Your task to perform on an android device: Add razer nari to the cart on costco, then select checkout. Image 0: 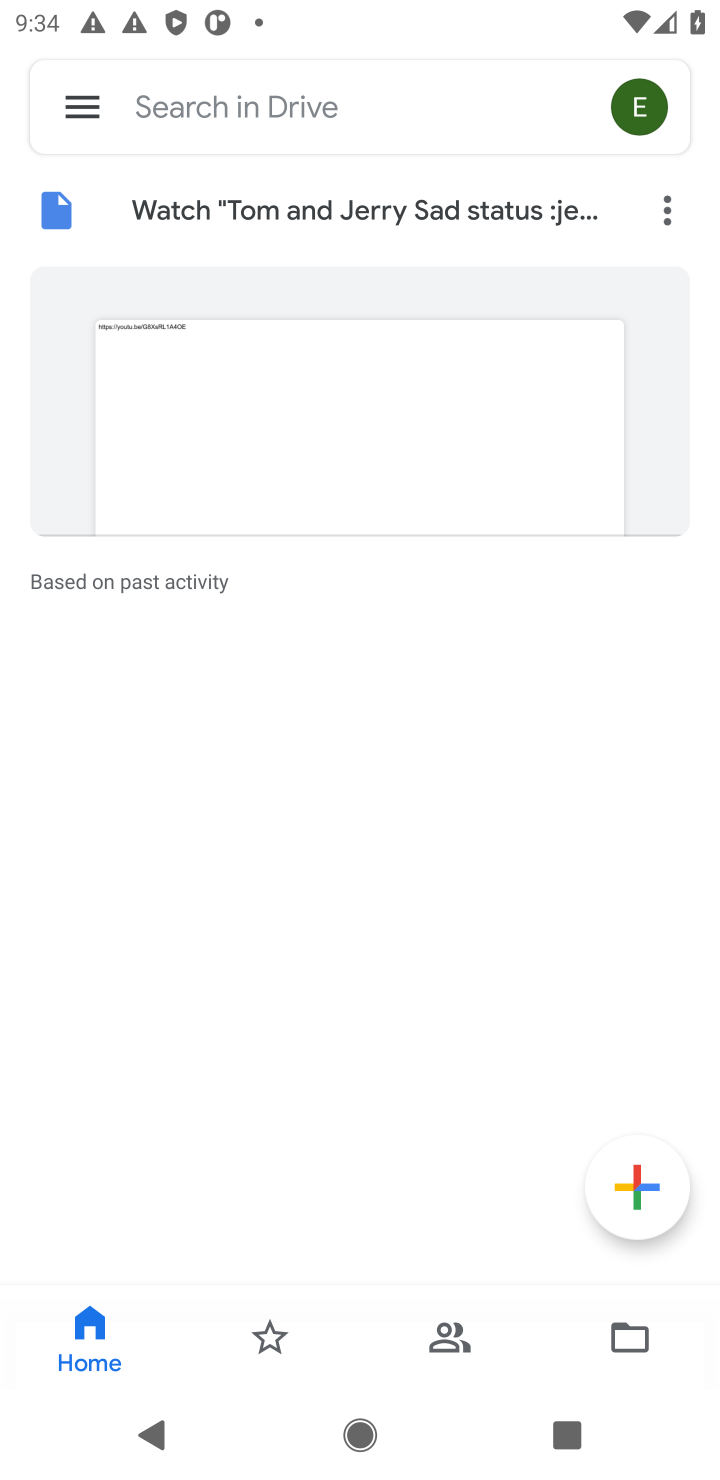
Step 0: press home button
Your task to perform on an android device: Add razer nari to the cart on costco, then select checkout. Image 1: 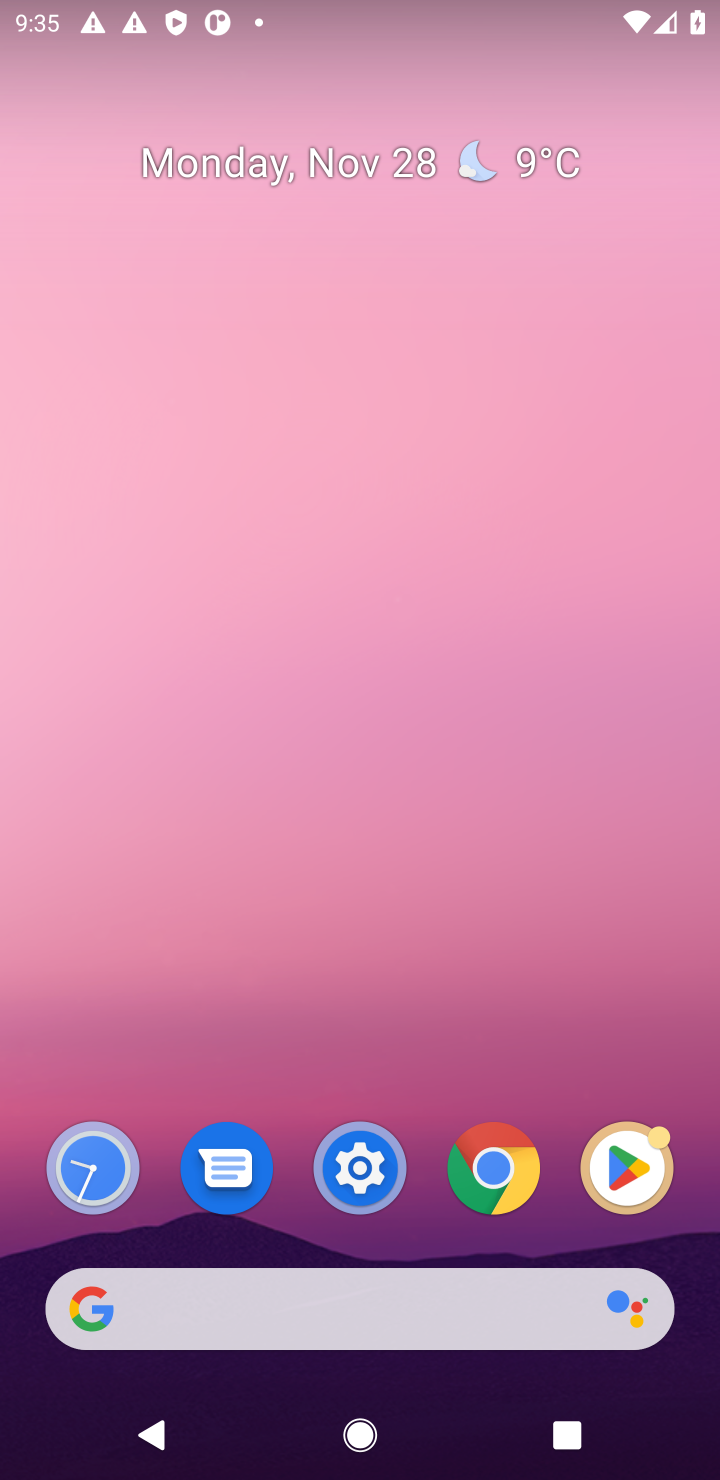
Step 1: click (276, 1311)
Your task to perform on an android device: Add razer nari to the cart on costco, then select checkout. Image 2: 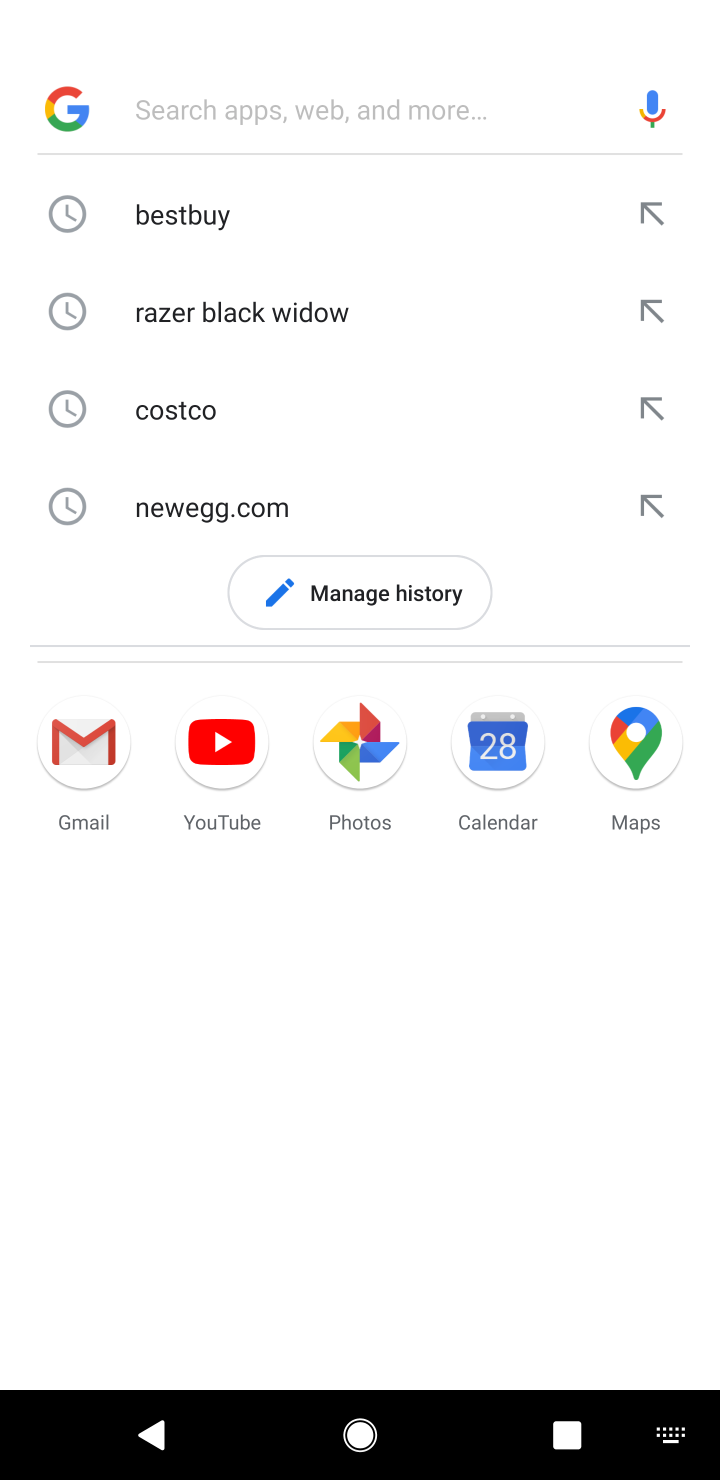
Step 2: type "costco"
Your task to perform on an android device: Add razer nari to the cart on costco, then select checkout. Image 3: 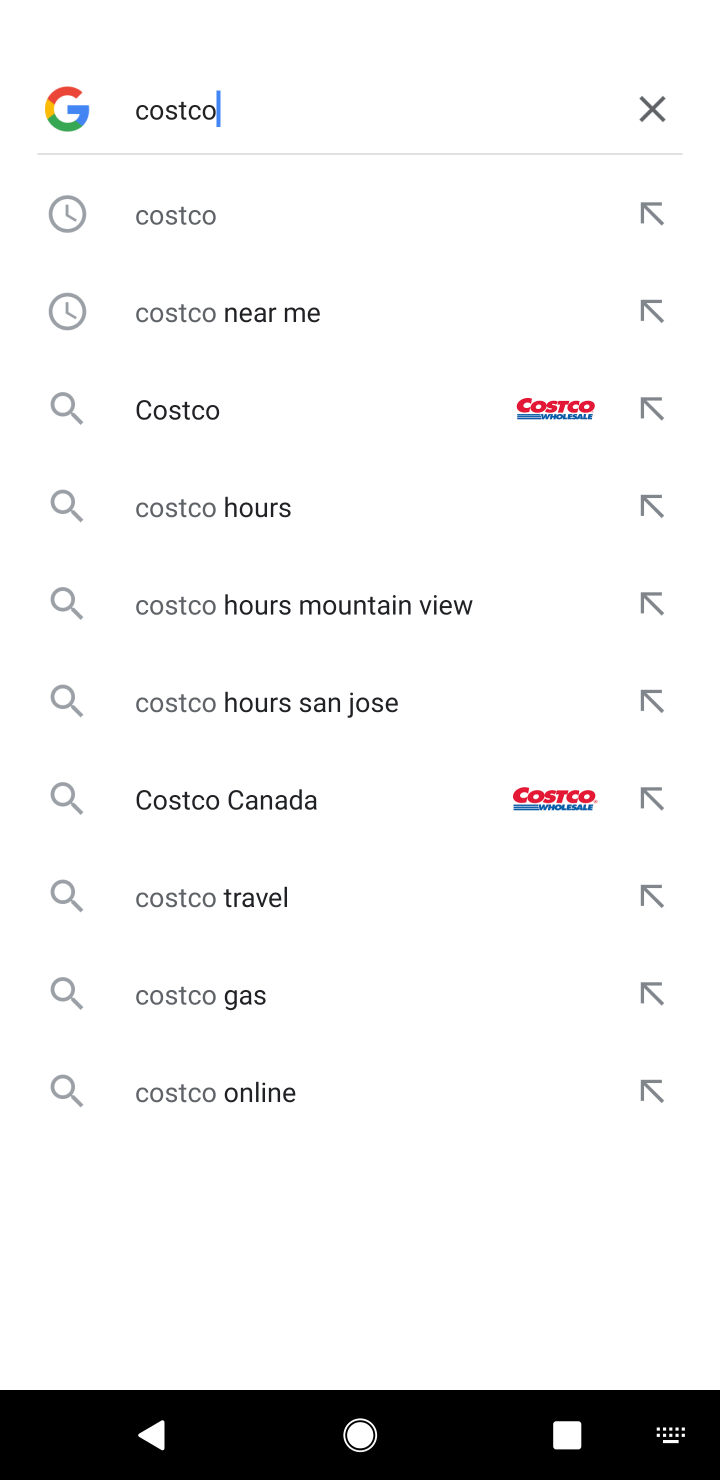
Step 3: click (259, 407)
Your task to perform on an android device: Add razer nari to the cart on costco, then select checkout. Image 4: 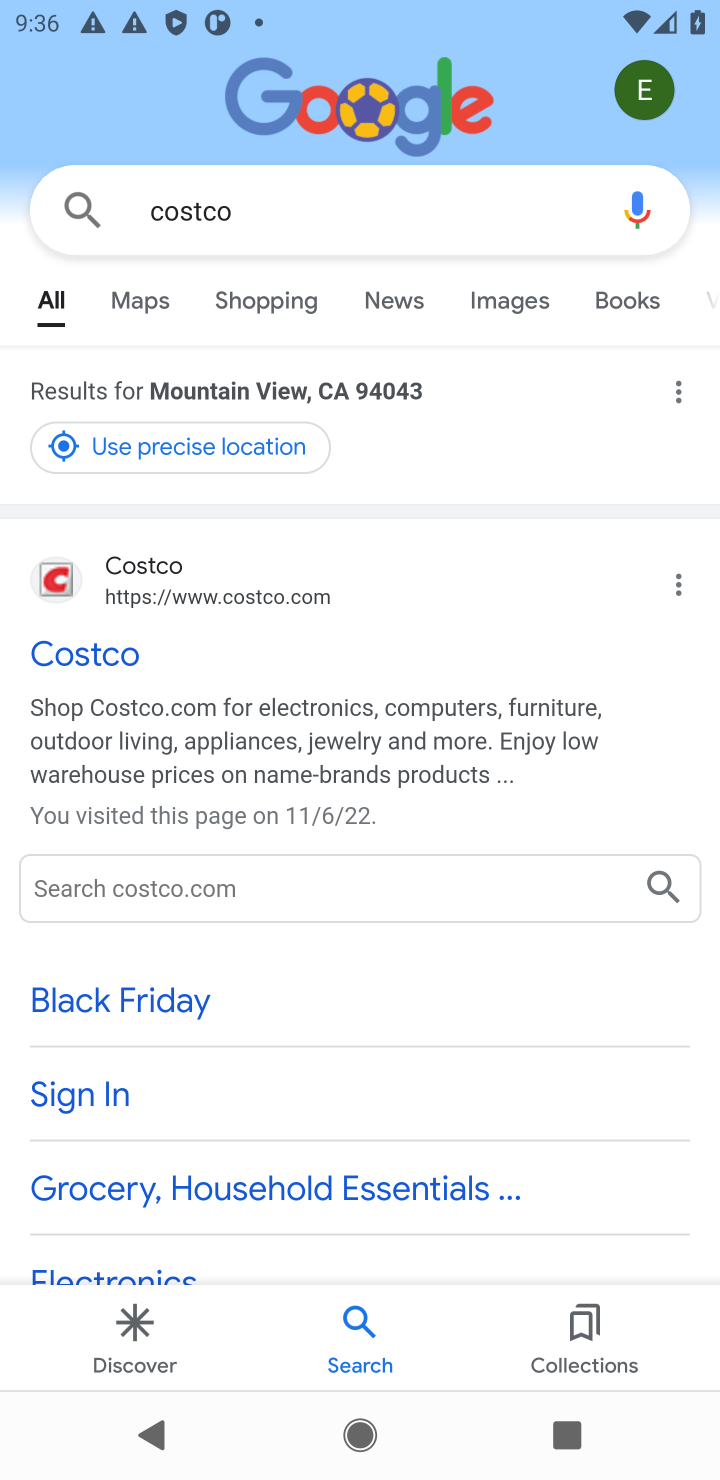
Step 4: click (96, 644)
Your task to perform on an android device: Add razer nari to the cart on costco, then select checkout. Image 5: 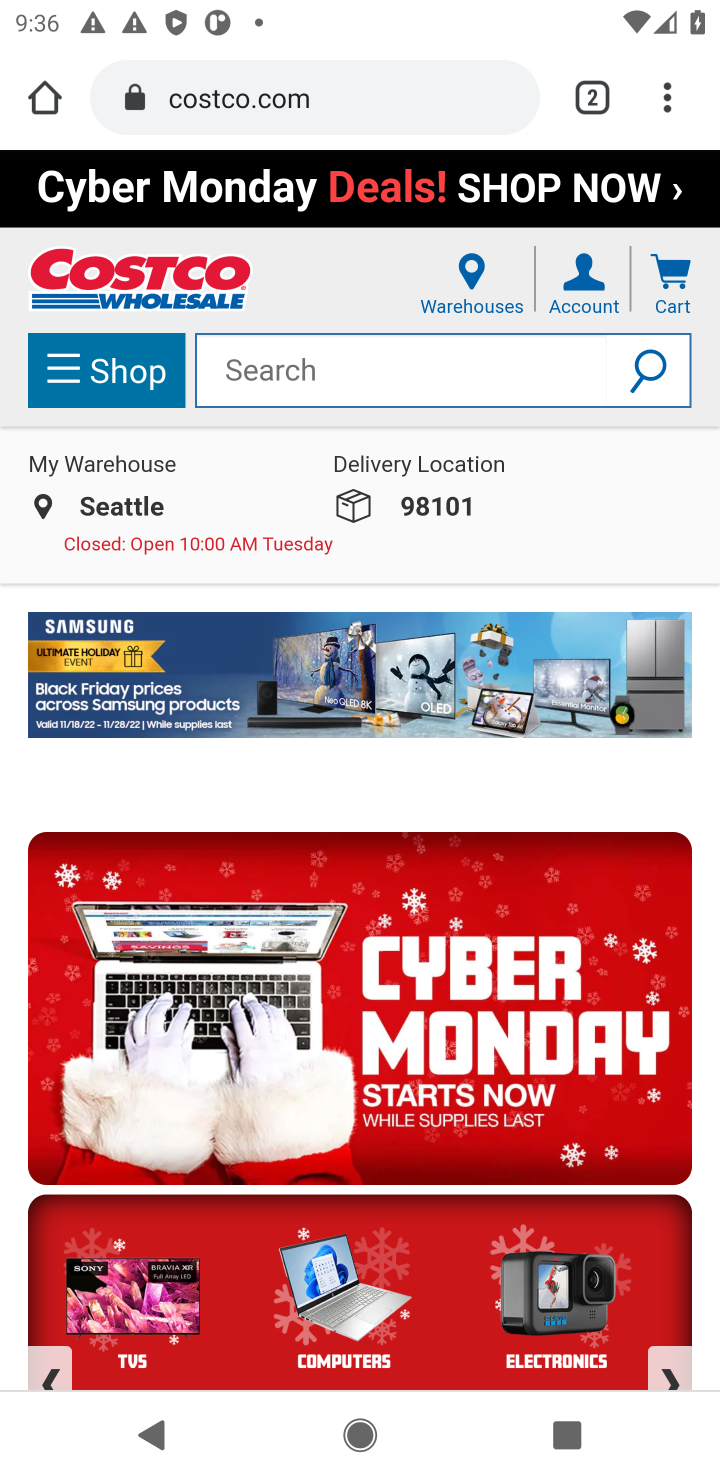
Step 5: task complete